Your task to perform on an android device: Set the phone to "Do not disturb". Image 0: 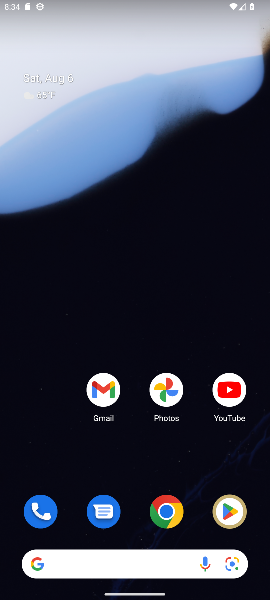
Step 0: press home button
Your task to perform on an android device: Set the phone to "Do not disturb". Image 1: 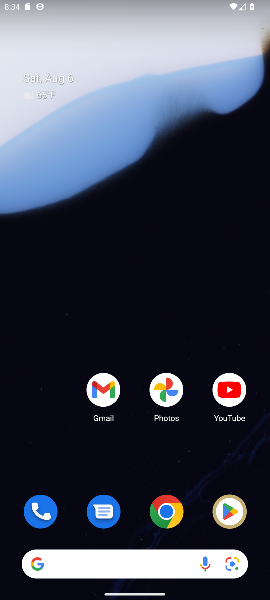
Step 1: drag from (186, 471) to (112, 210)
Your task to perform on an android device: Set the phone to "Do not disturb". Image 2: 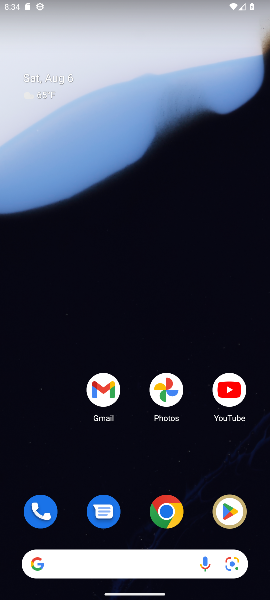
Step 2: drag from (234, 3) to (242, 435)
Your task to perform on an android device: Set the phone to "Do not disturb". Image 3: 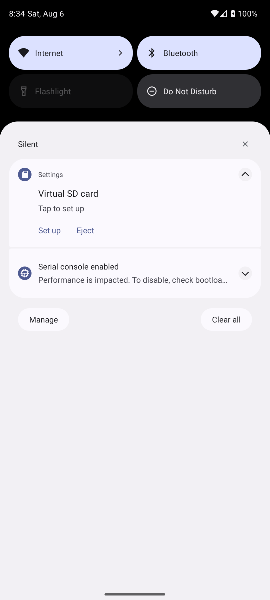
Step 3: click (199, 96)
Your task to perform on an android device: Set the phone to "Do not disturb". Image 4: 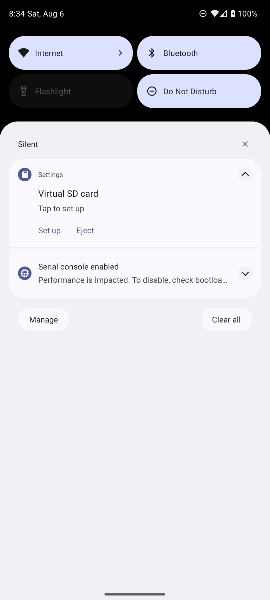
Step 4: task complete